Your task to perform on an android device: set the stopwatch Image 0: 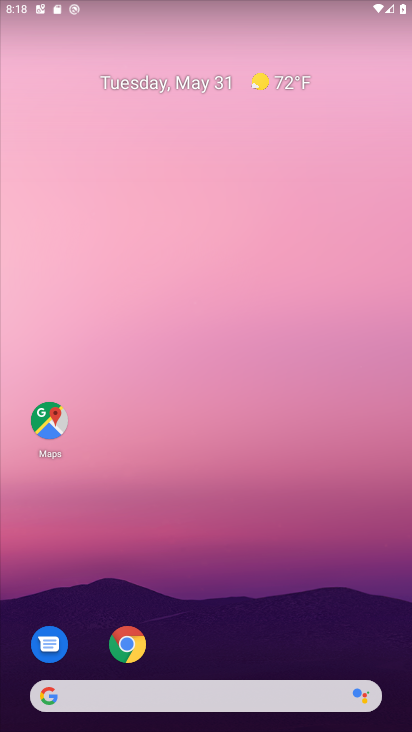
Step 0: press home button
Your task to perform on an android device: set the stopwatch Image 1: 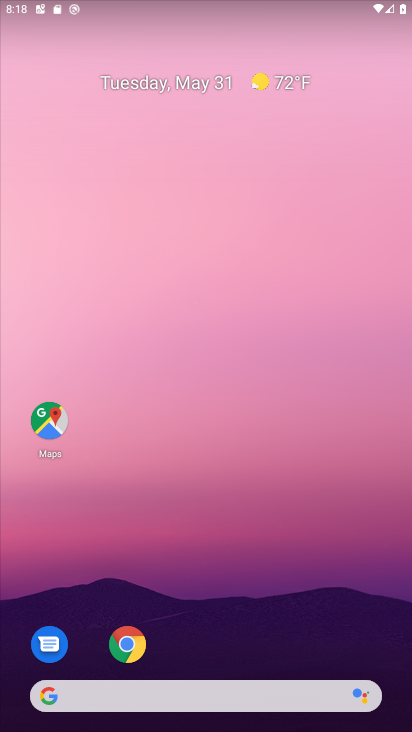
Step 1: drag from (226, 665) to (220, 86)
Your task to perform on an android device: set the stopwatch Image 2: 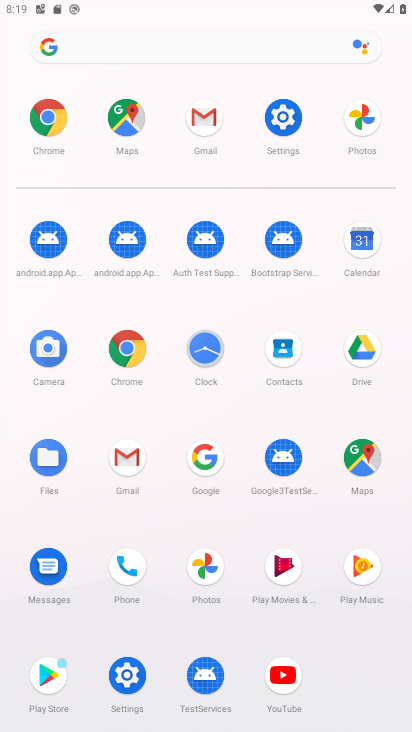
Step 2: click (203, 340)
Your task to perform on an android device: set the stopwatch Image 3: 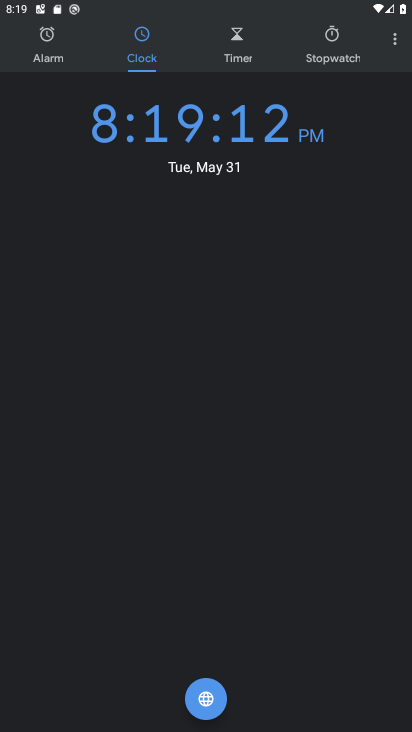
Step 3: click (332, 25)
Your task to perform on an android device: set the stopwatch Image 4: 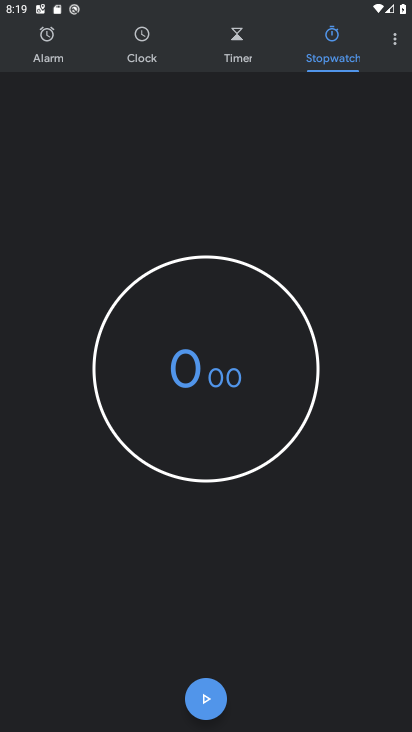
Step 4: click (211, 690)
Your task to perform on an android device: set the stopwatch Image 5: 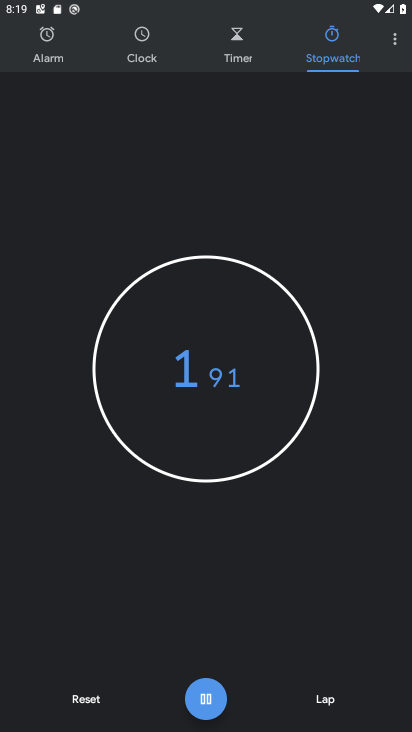
Step 5: task complete